Your task to perform on an android device: delete the emails in spam in the gmail app Image 0: 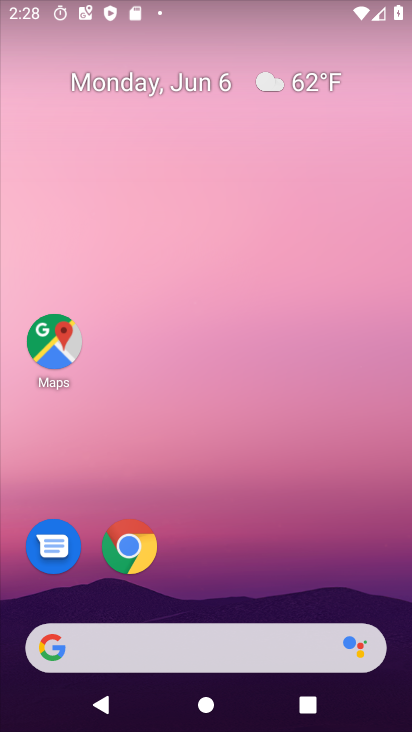
Step 0: drag from (305, 542) to (276, 156)
Your task to perform on an android device: delete the emails in spam in the gmail app Image 1: 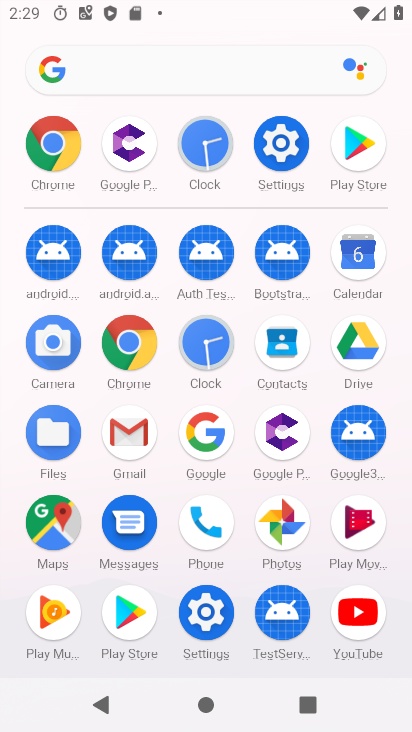
Step 1: click (139, 444)
Your task to perform on an android device: delete the emails in spam in the gmail app Image 2: 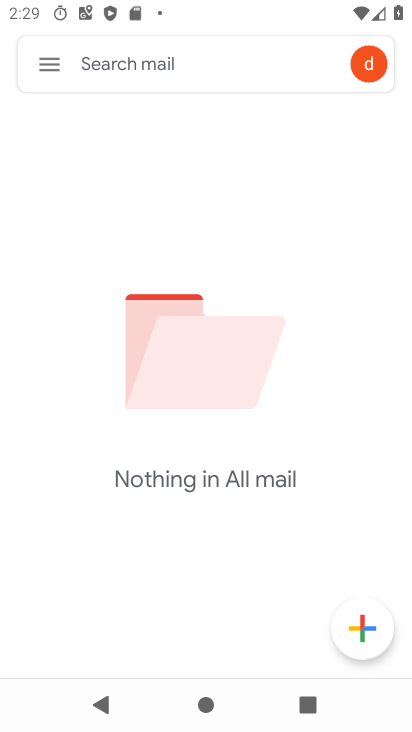
Step 2: click (56, 64)
Your task to perform on an android device: delete the emails in spam in the gmail app Image 3: 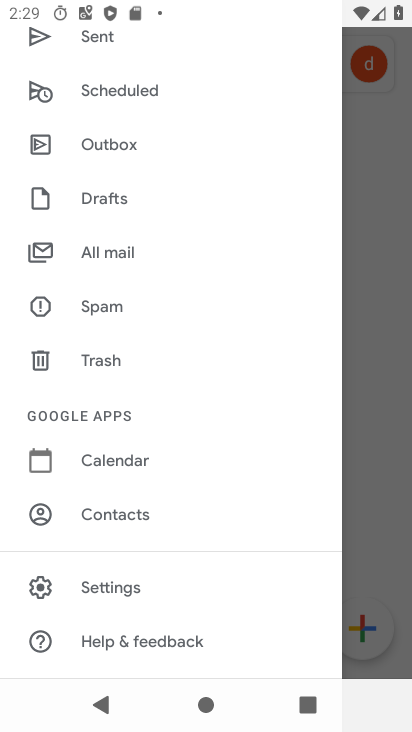
Step 3: click (100, 298)
Your task to perform on an android device: delete the emails in spam in the gmail app Image 4: 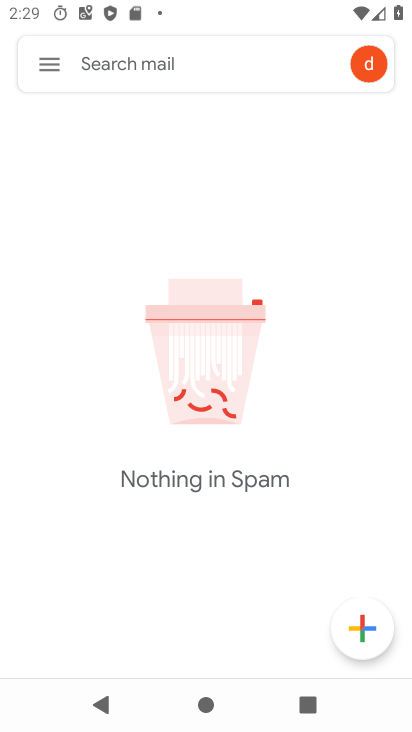
Step 4: task complete